Your task to perform on an android device: Go to eBay Image 0: 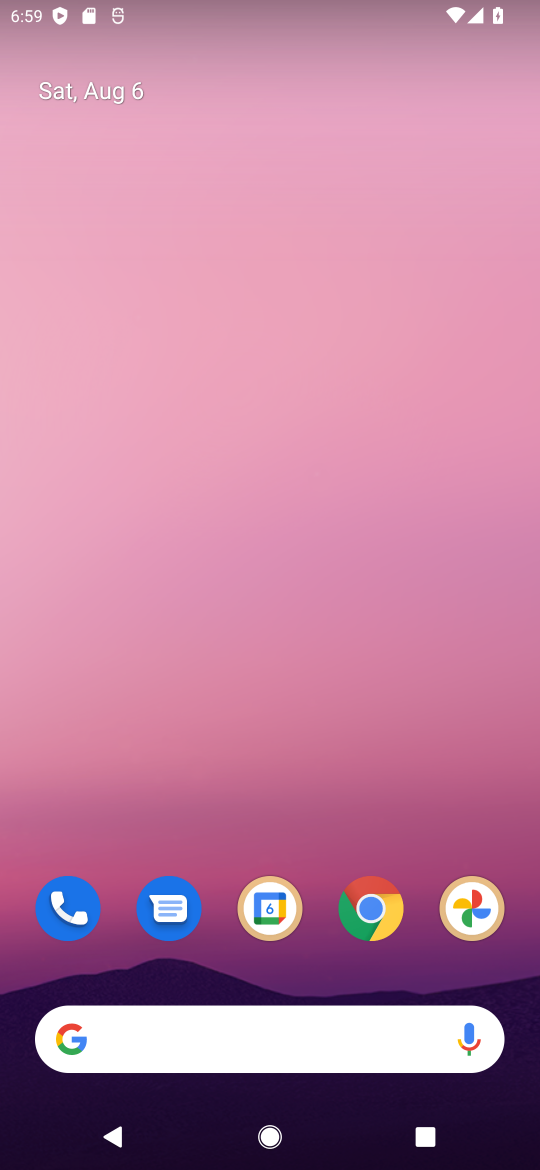
Step 0: click (366, 910)
Your task to perform on an android device: Go to eBay Image 1: 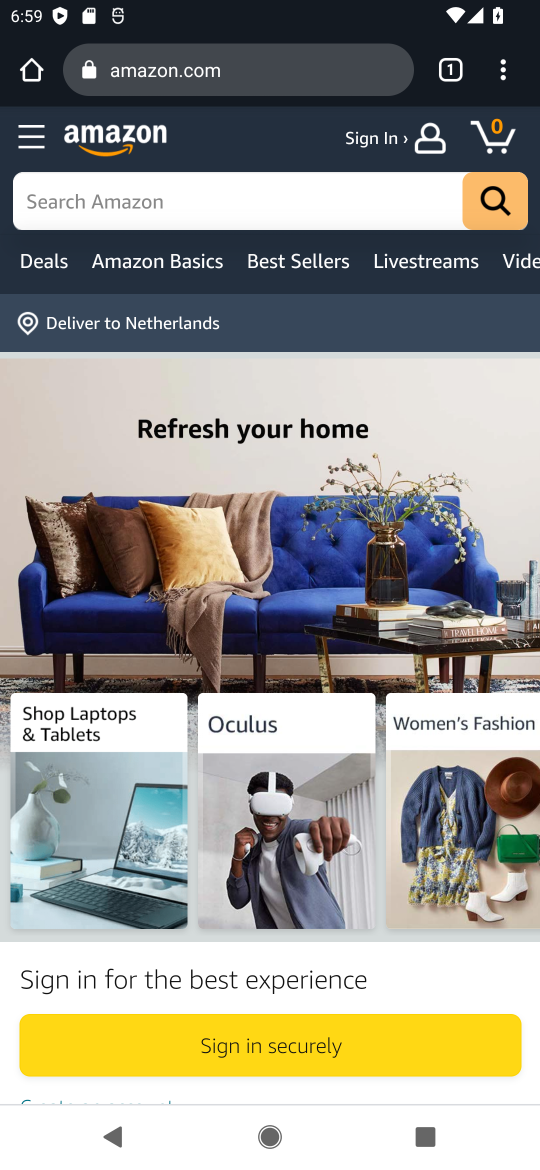
Step 1: click (446, 67)
Your task to perform on an android device: Go to eBay Image 2: 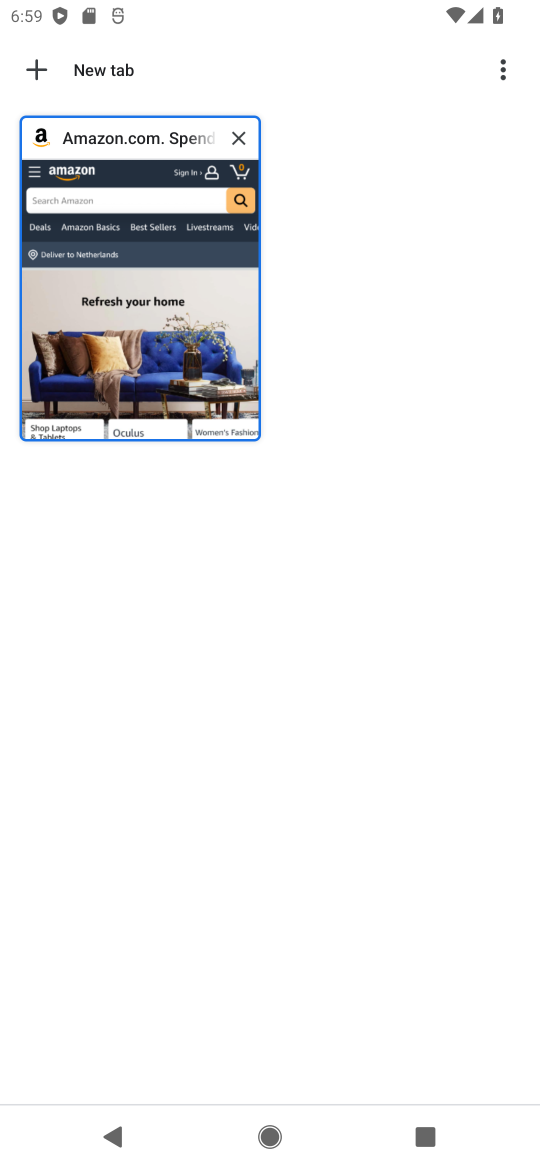
Step 2: click (32, 70)
Your task to perform on an android device: Go to eBay Image 3: 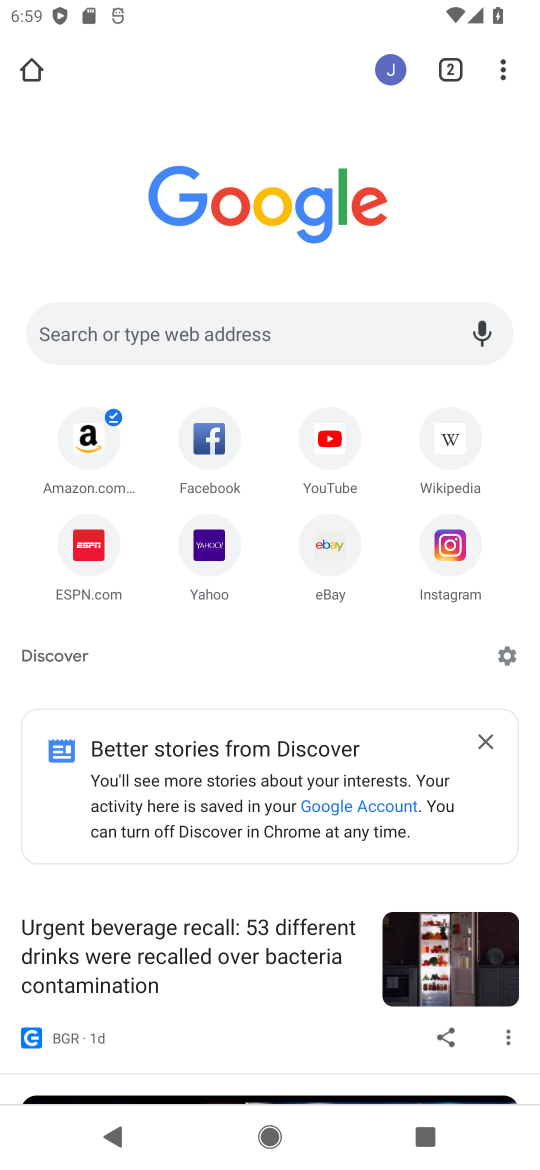
Step 3: click (346, 551)
Your task to perform on an android device: Go to eBay Image 4: 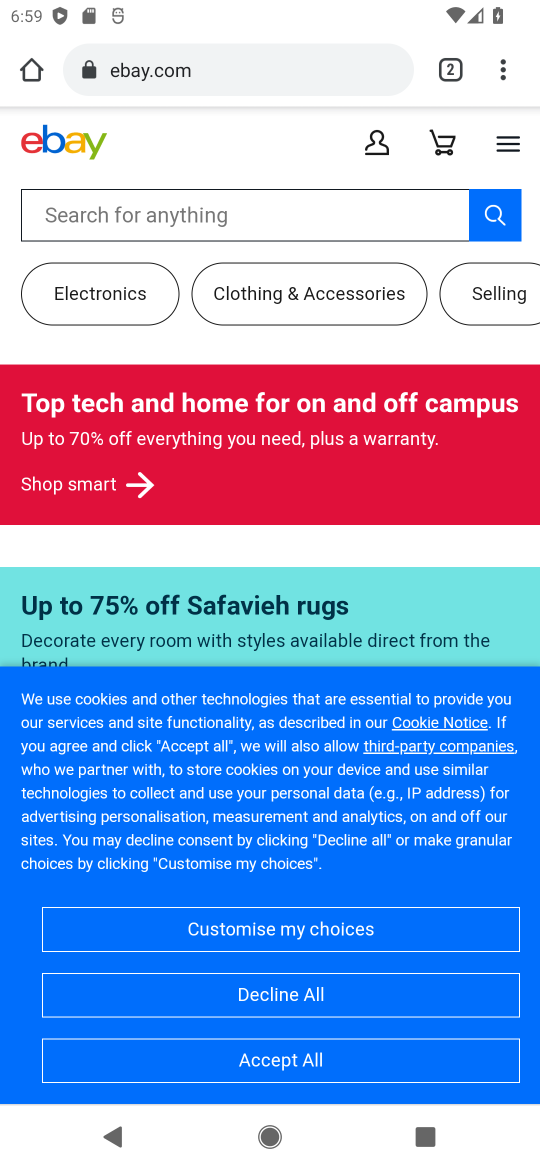
Step 4: task complete